Your task to perform on an android device: Go to sound settings Image 0: 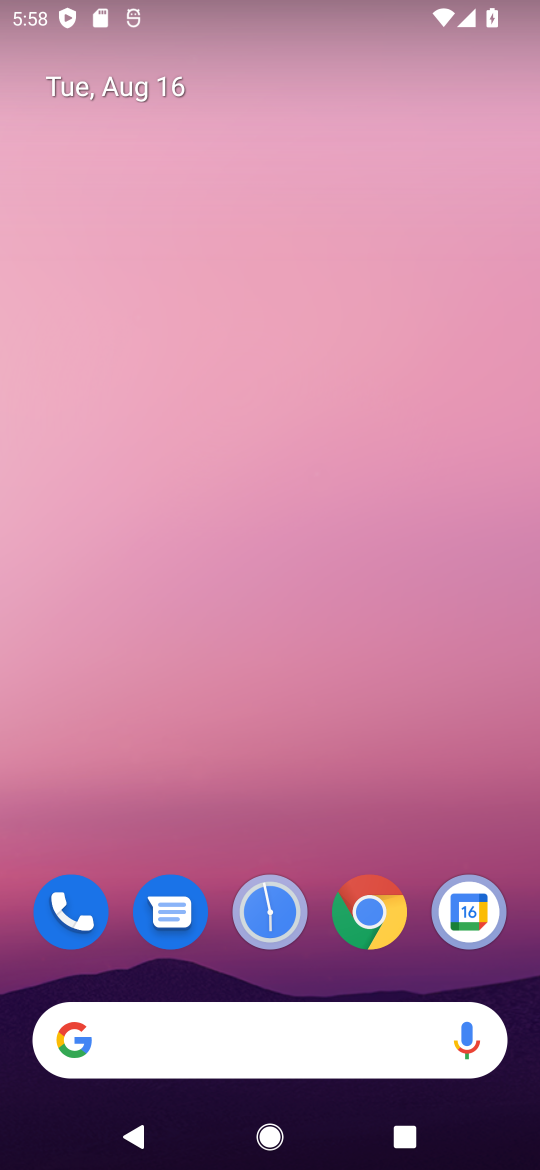
Step 0: drag from (436, 978) to (386, 221)
Your task to perform on an android device: Go to sound settings Image 1: 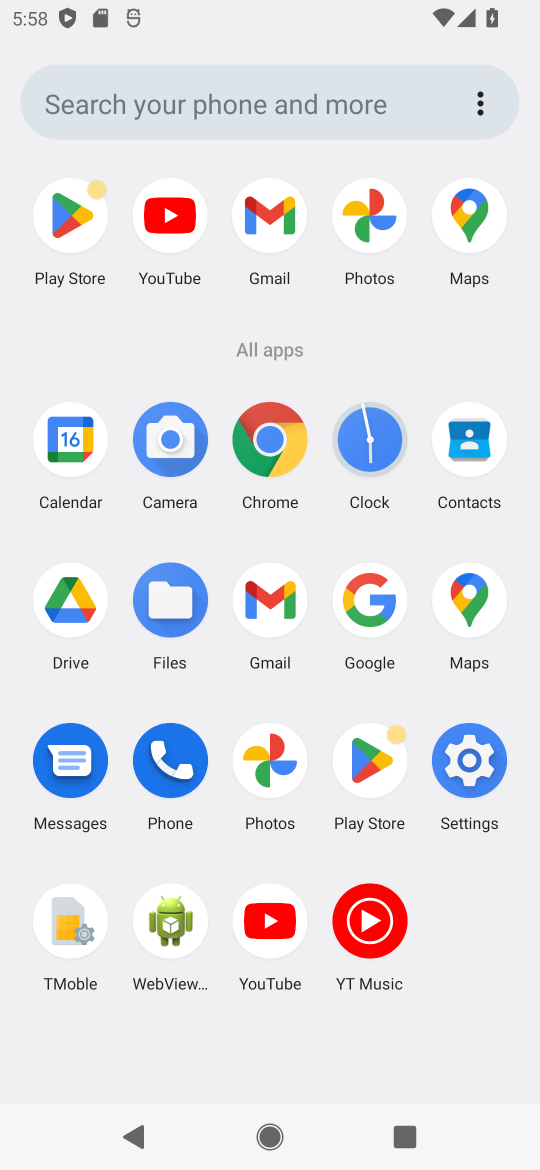
Step 1: click (472, 760)
Your task to perform on an android device: Go to sound settings Image 2: 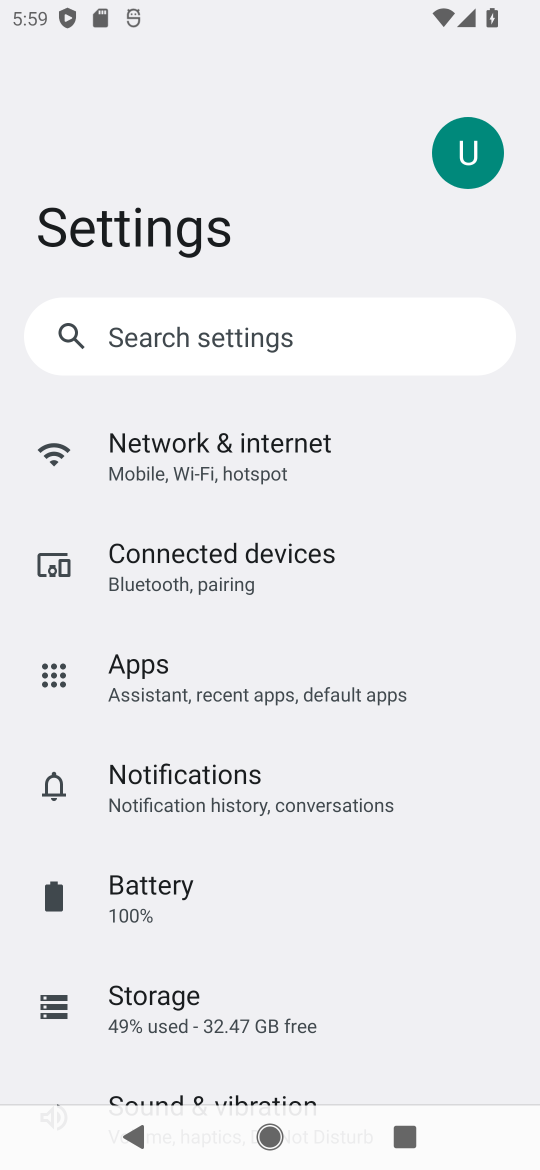
Step 2: drag from (305, 939) to (334, 398)
Your task to perform on an android device: Go to sound settings Image 3: 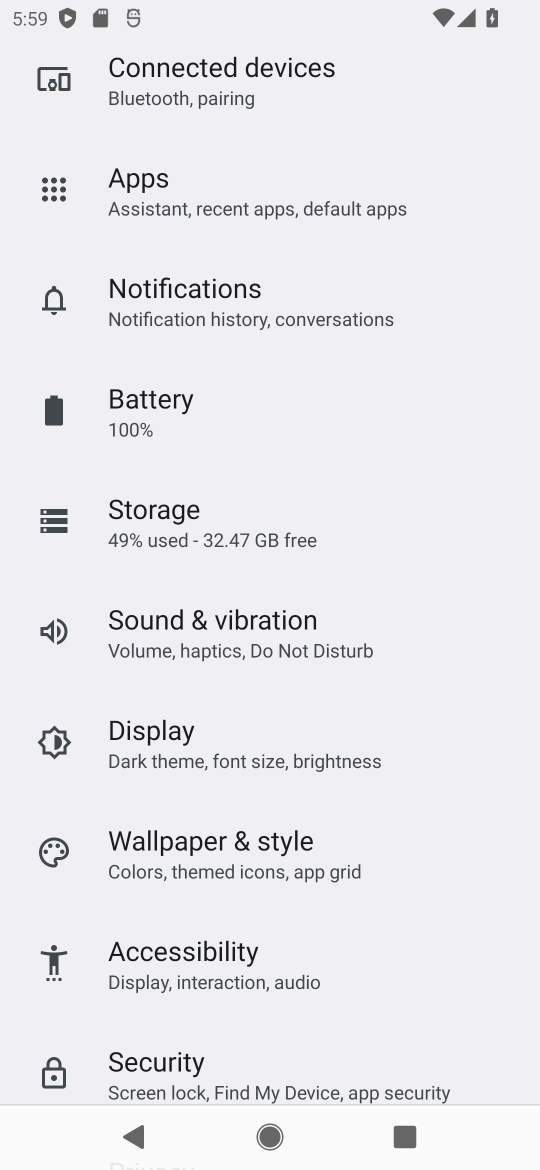
Step 3: click (167, 611)
Your task to perform on an android device: Go to sound settings Image 4: 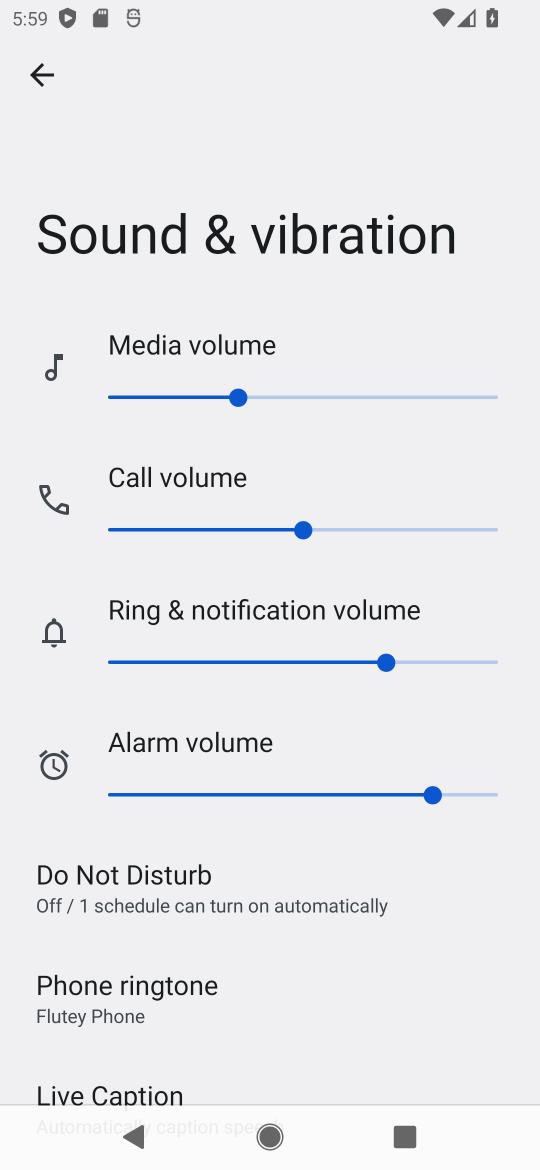
Step 4: task complete